Your task to perform on an android device: change alarm snooze length Image 0: 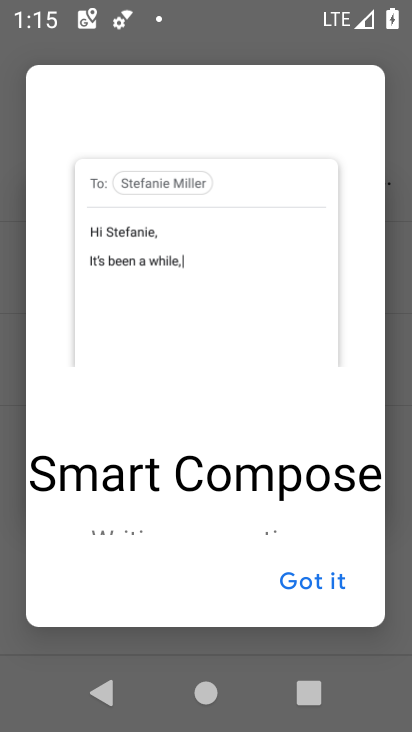
Step 0: press home button
Your task to perform on an android device: change alarm snooze length Image 1: 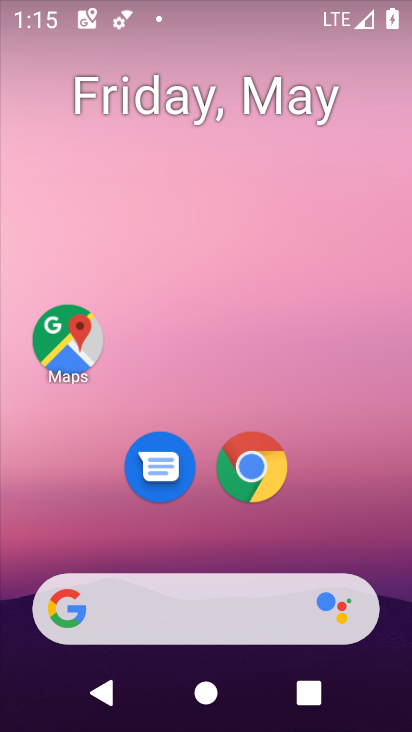
Step 1: drag from (357, 543) to (407, 595)
Your task to perform on an android device: change alarm snooze length Image 2: 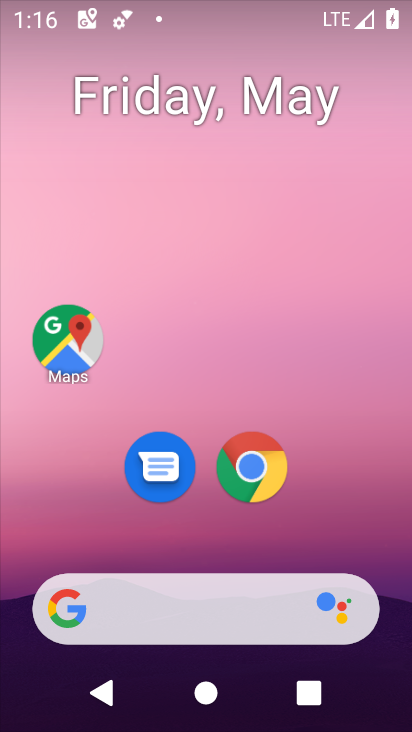
Step 2: click (345, 412)
Your task to perform on an android device: change alarm snooze length Image 3: 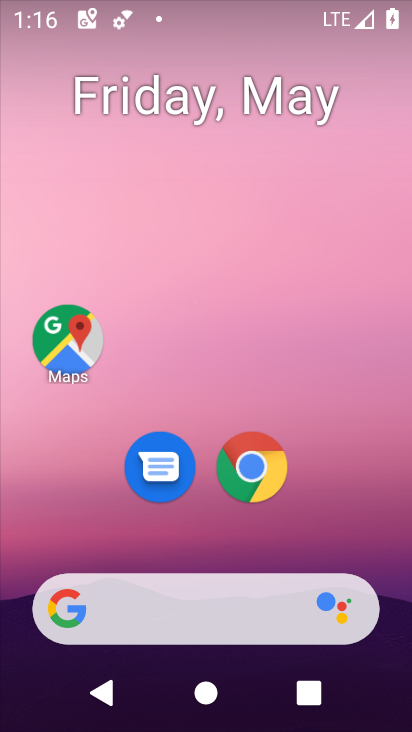
Step 3: drag from (377, 511) to (401, 37)
Your task to perform on an android device: change alarm snooze length Image 4: 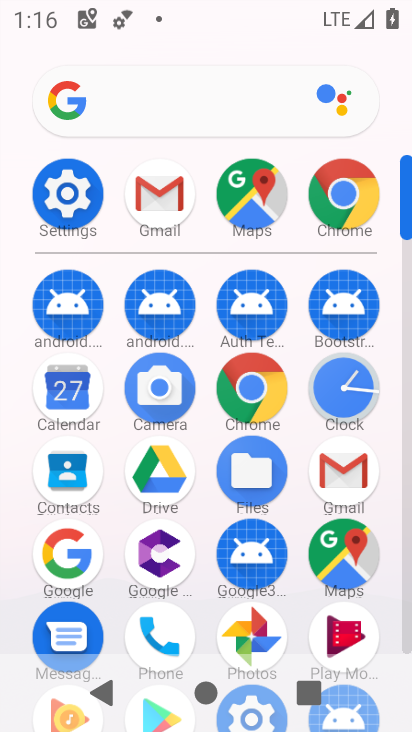
Step 4: click (348, 409)
Your task to perform on an android device: change alarm snooze length Image 5: 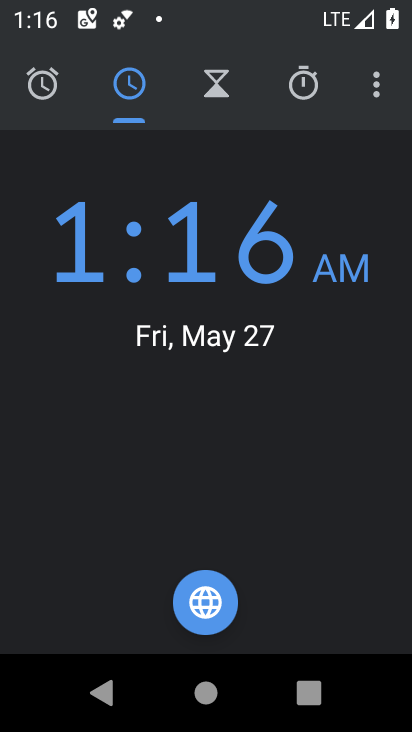
Step 5: click (375, 100)
Your task to perform on an android device: change alarm snooze length Image 6: 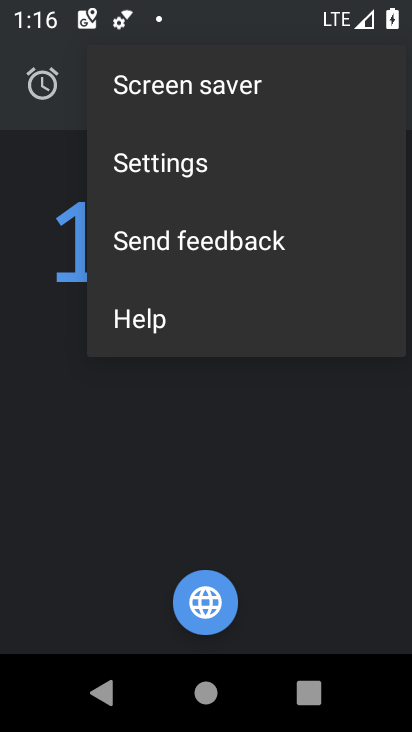
Step 6: click (181, 183)
Your task to perform on an android device: change alarm snooze length Image 7: 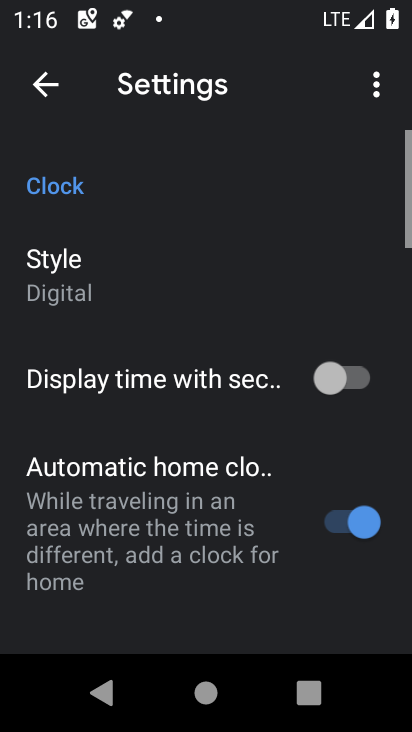
Step 7: drag from (116, 515) to (206, 154)
Your task to perform on an android device: change alarm snooze length Image 8: 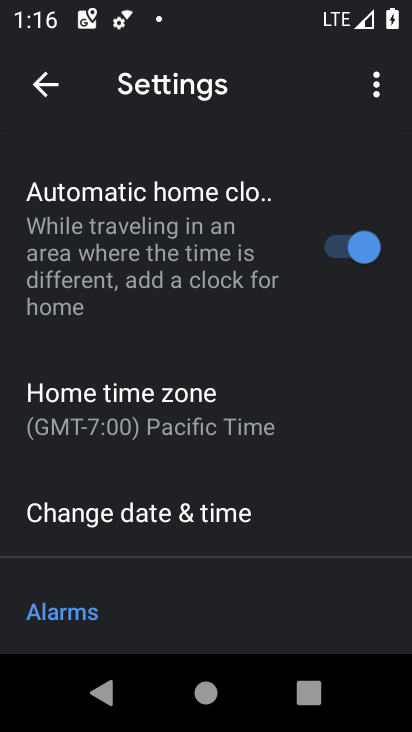
Step 8: drag from (244, 544) to (329, 123)
Your task to perform on an android device: change alarm snooze length Image 9: 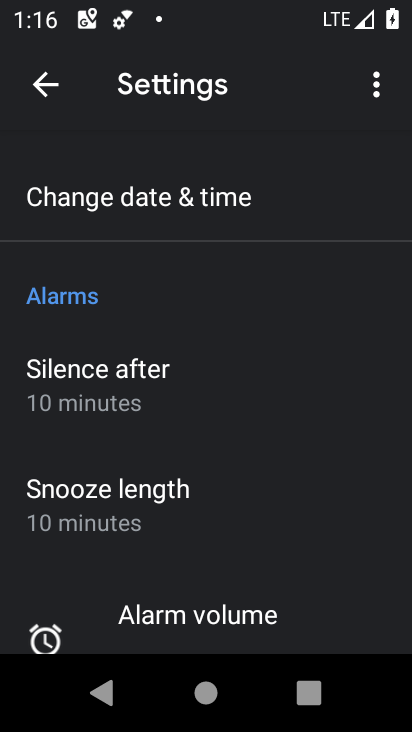
Step 9: click (100, 509)
Your task to perform on an android device: change alarm snooze length Image 10: 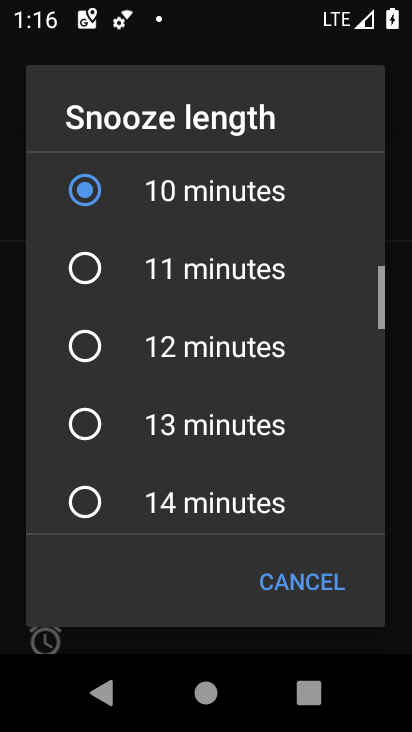
Step 10: click (98, 349)
Your task to perform on an android device: change alarm snooze length Image 11: 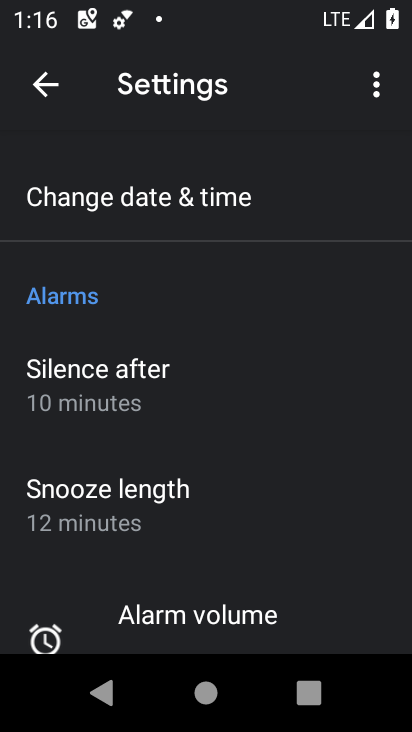
Step 11: task complete